Your task to perform on an android device: change alarm snooze length Image 0: 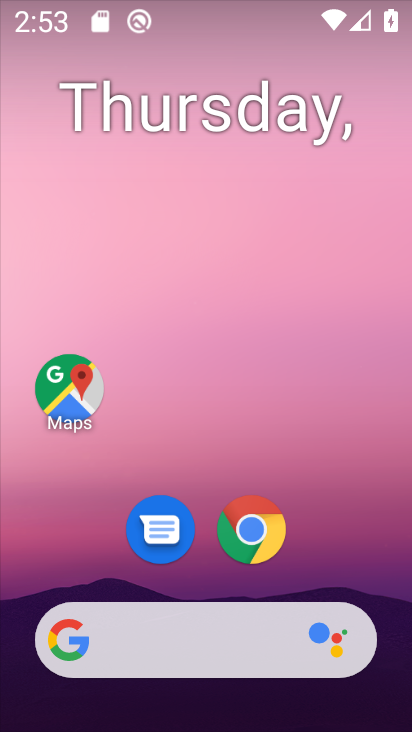
Step 0: drag from (330, 566) to (261, 11)
Your task to perform on an android device: change alarm snooze length Image 1: 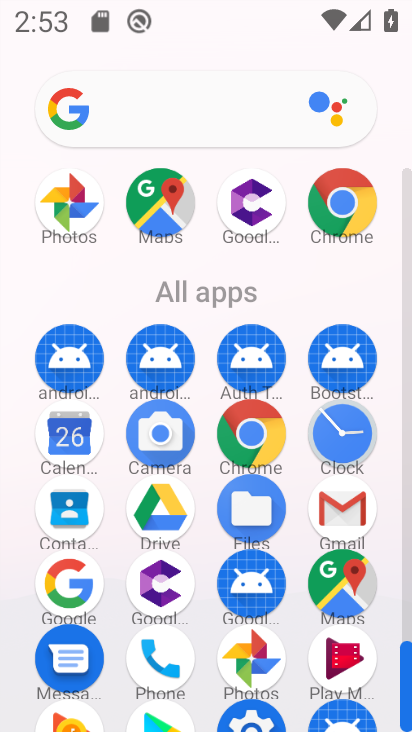
Step 1: click (357, 440)
Your task to perform on an android device: change alarm snooze length Image 2: 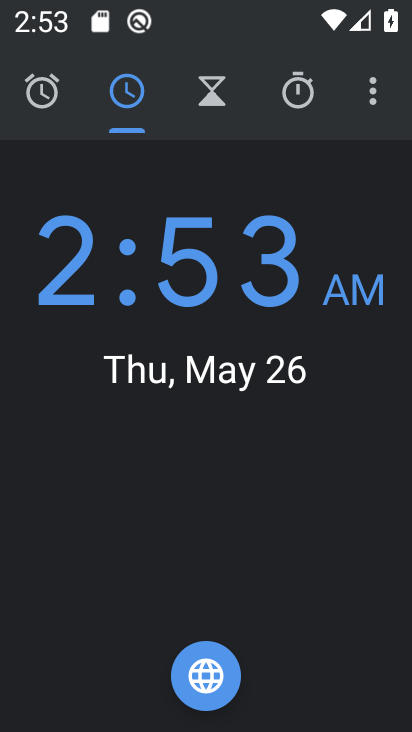
Step 2: click (378, 98)
Your task to perform on an android device: change alarm snooze length Image 3: 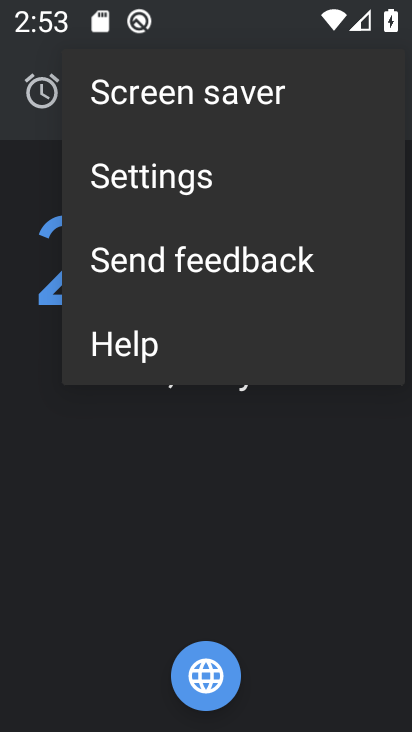
Step 3: click (188, 173)
Your task to perform on an android device: change alarm snooze length Image 4: 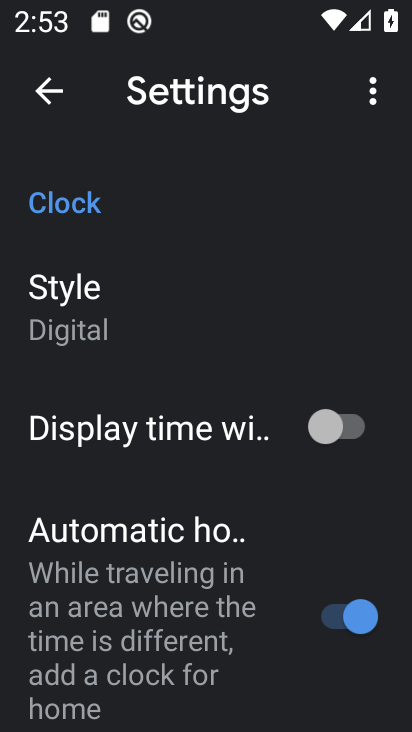
Step 4: drag from (173, 533) to (143, 73)
Your task to perform on an android device: change alarm snooze length Image 5: 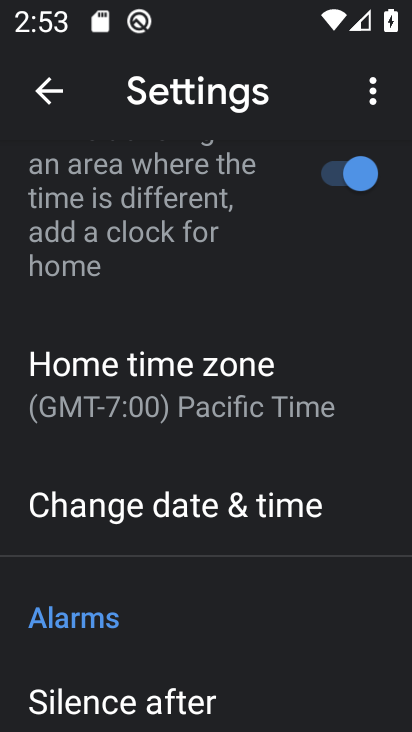
Step 5: drag from (164, 554) to (155, 154)
Your task to perform on an android device: change alarm snooze length Image 6: 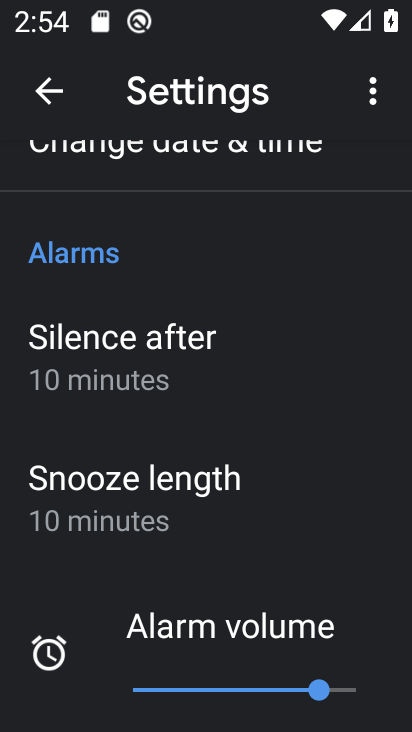
Step 6: click (169, 497)
Your task to perform on an android device: change alarm snooze length Image 7: 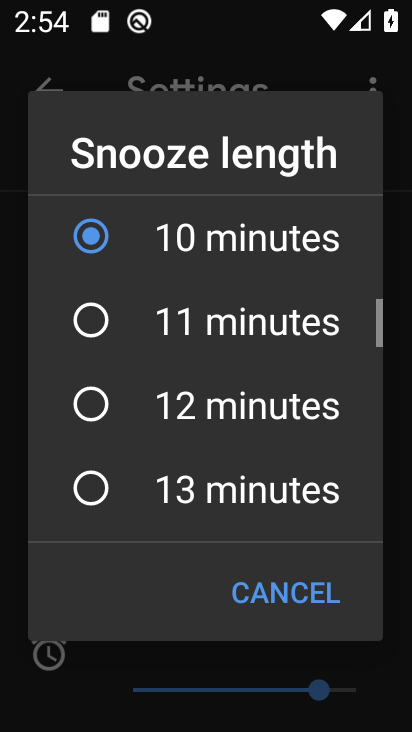
Step 7: click (207, 487)
Your task to perform on an android device: change alarm snooze length Image 8: 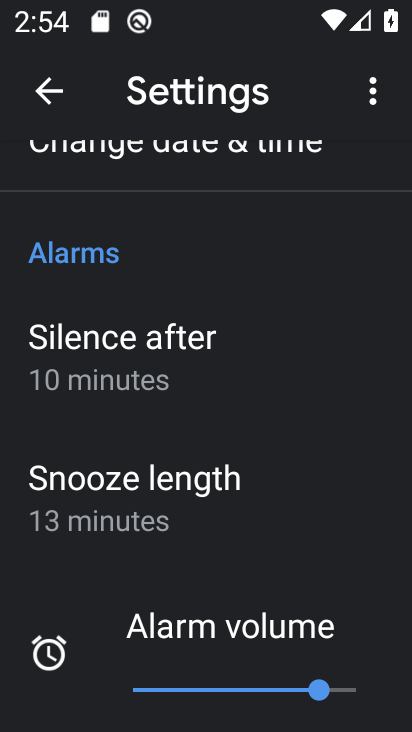
Step 8: task complete